Your task to perform on an android device: Go to wifi settings Image 0: 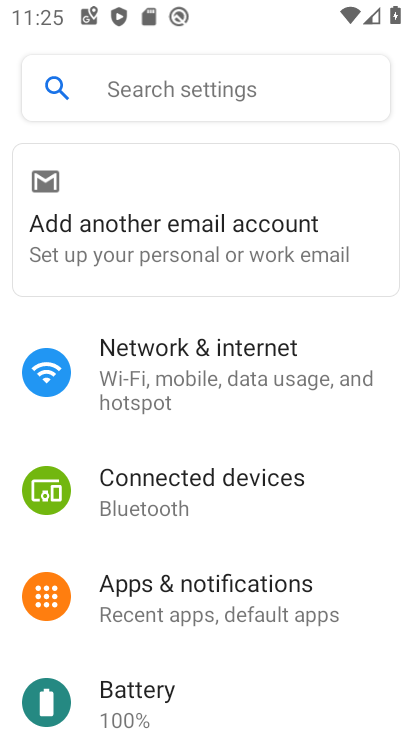
Step 0: press home button
Your task to perform on an android device: Go to wifi settings Image 1: 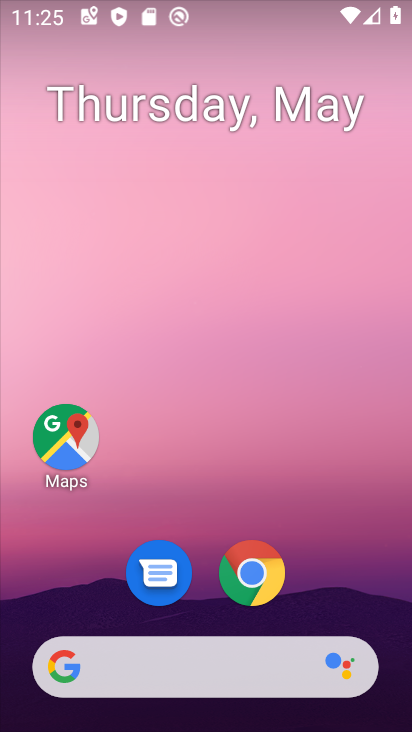
Step 1: drag from (183, 11) to (134, 449)
Your task to perform on an android device: Go to wifi settings Image 2: 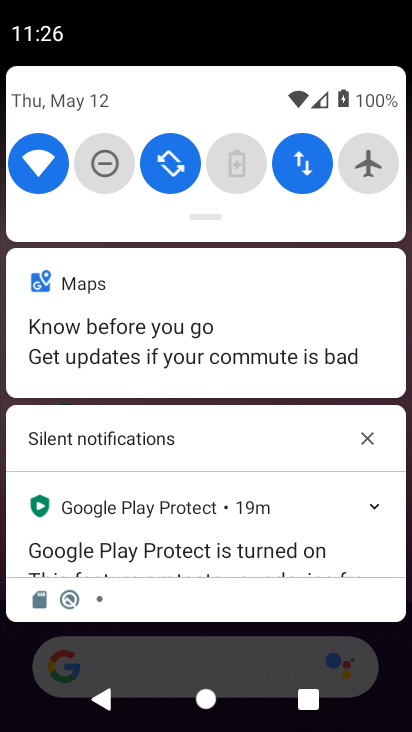
Step 2: click (32, 175)
Your task to perform on an android device: Go to wifi settings Image 3: 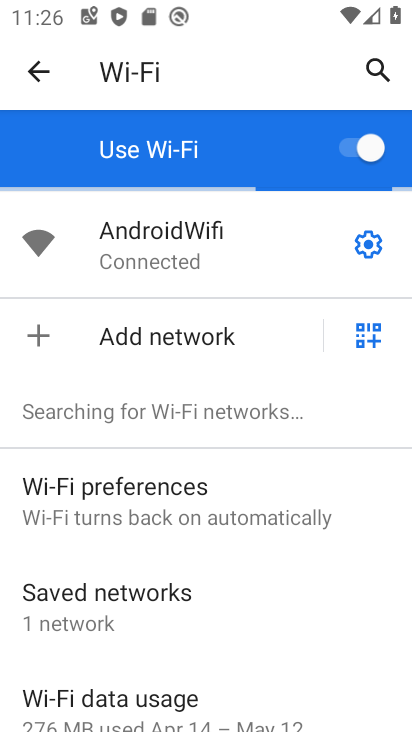
Step 3: task complete